Your task to perform on an android device: turn off notifications settings in the gmail app Image 0: 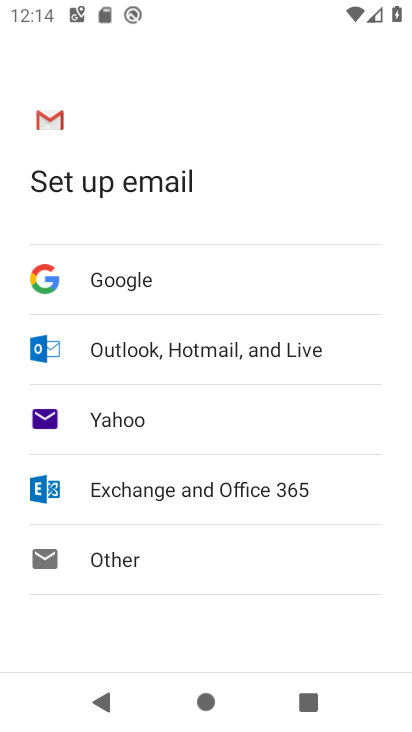
Step 0: press home button
Your task to perform on an android device: turn off notifications settings in the gmail app Image 1: 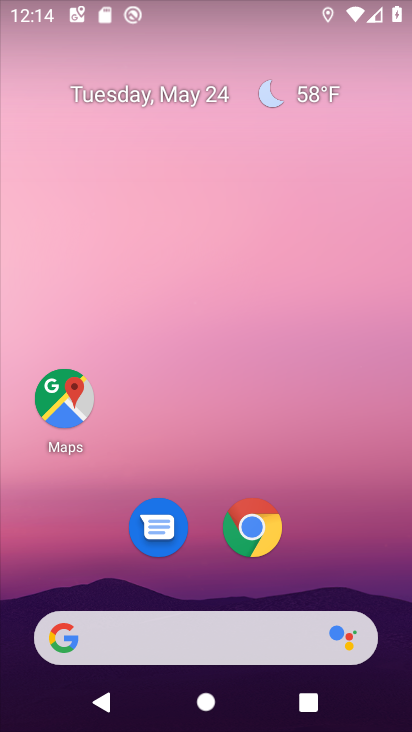
Step 1: drag from (396, 577) to (281, 110)
Your task to perform on an android device: turn off notifications settings in the gmail app Image 2: 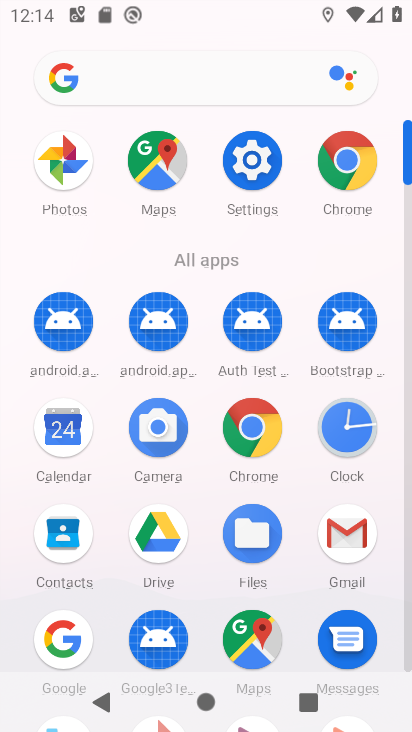
Step 2: click (357, 540)
Your task to perform on an android device: turn off notifications settings in the gmail app Image 3: 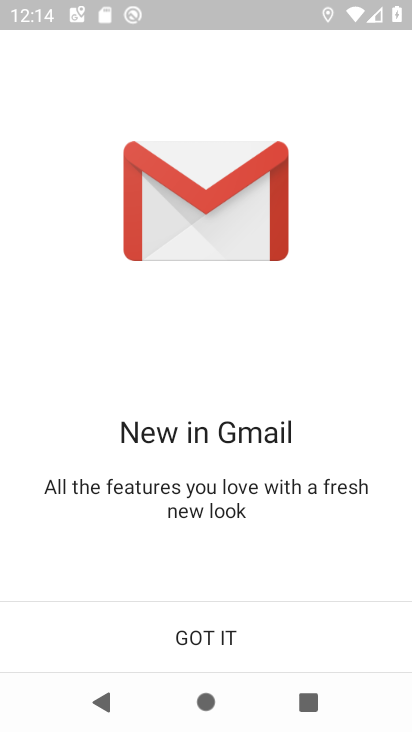
Step 3: click (196, 629)
Your task to perform on an android device: turn off notifications settings in the gmail app Image 4: 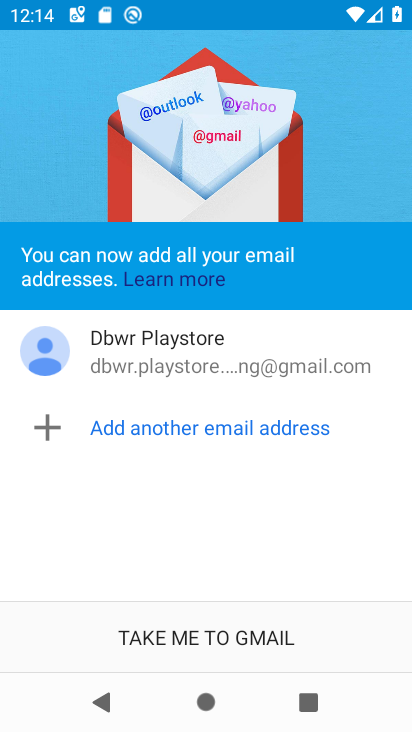
Step 4: click (196, 629)
Your task to perform on an android device: turn off notifications settings in the gmail app Image 5: 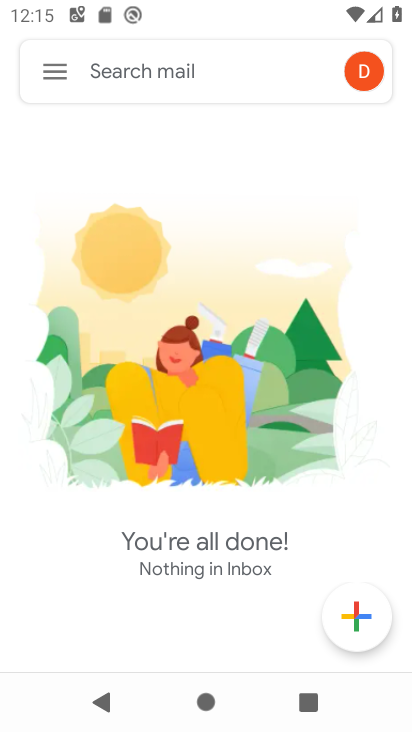
Step 5: click (57, 65)
Your task to perform on an android device: turn off notifications settings in the gmail app Image 6: 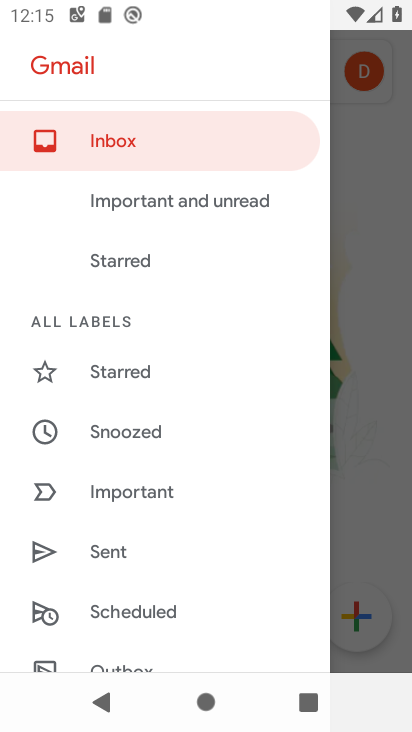
Step 6: drag from (162, 646) to (131, 88)
Your task to perform on an android device: turn off notifications settings in the gmail app Image 7: 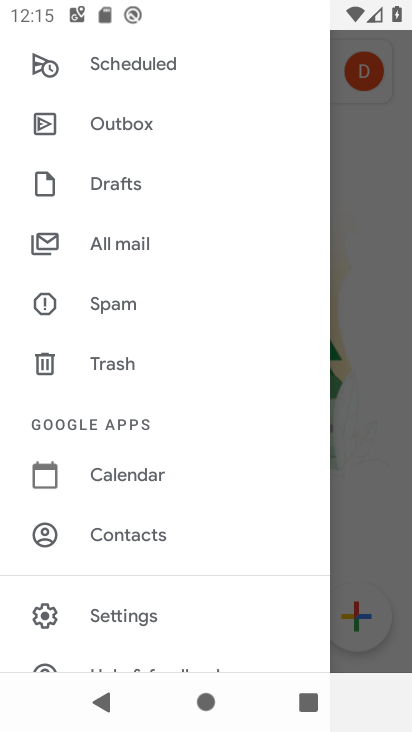
Step 7: click (164, 616)
Your task to perform on an android device: turn off notifications settings in the gmail app Image 8: 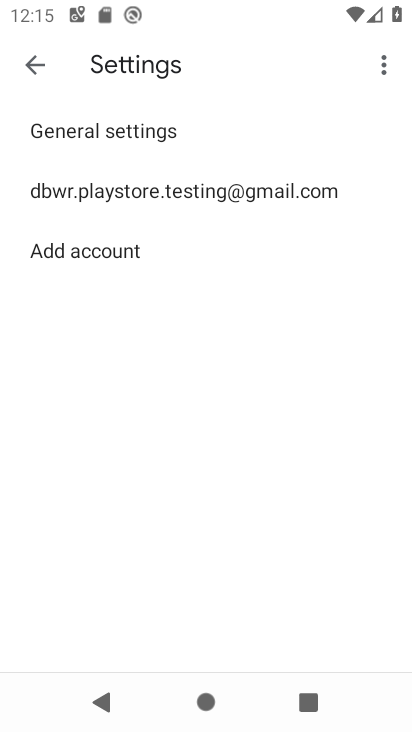
Step 8: click (206, 201)
Your task to perform on an android device: turn off notifications settings in the gmail app Image 9: 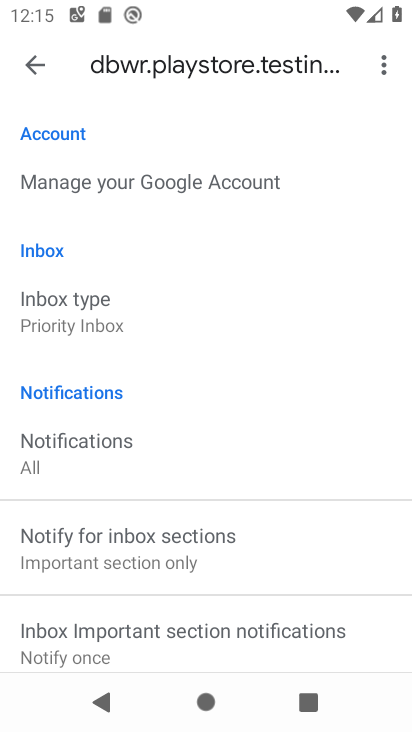
Step 9: drag from (243, 588) to (210, 227)
Your task to perform on an android device: turn off notifications settings in the gmail app Image 10: 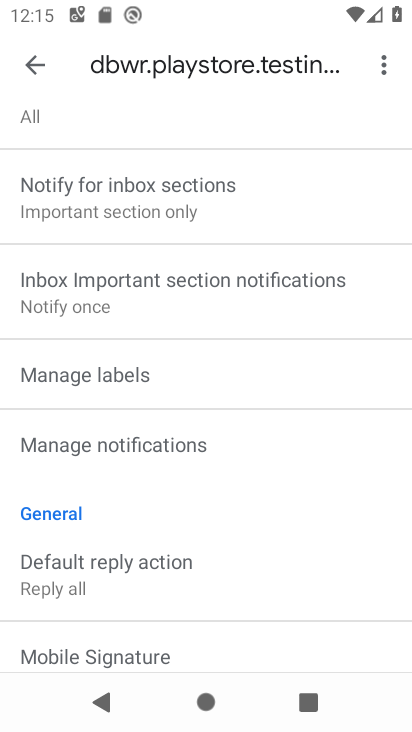
Step 10: click (219, 474)
Your task to perform on an android device: turn off notifications settings in the gmail app Image 11: 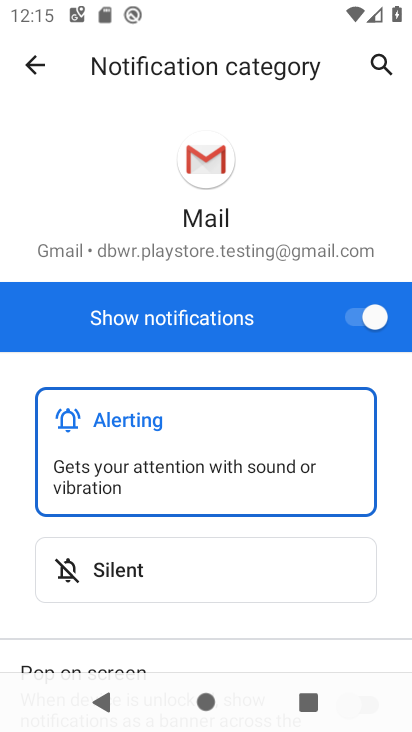
Step 11: click (354, 322)
Your task to perform on an android device: turn off notifications settings in the gmail app Image 12: 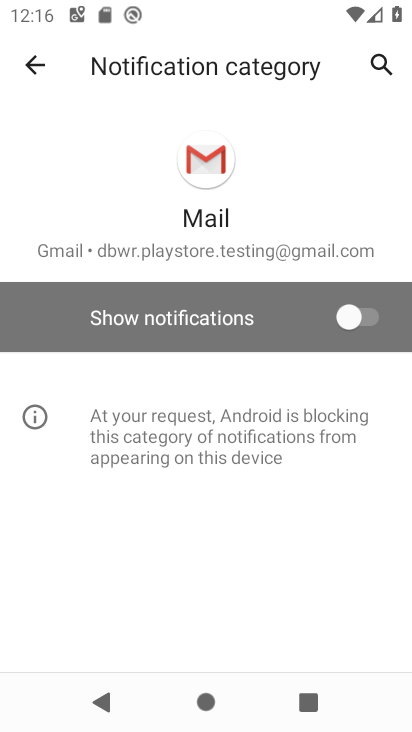
Step 12: task complete